Your task to perform on an android device: Is it going to rain today? Image 0: 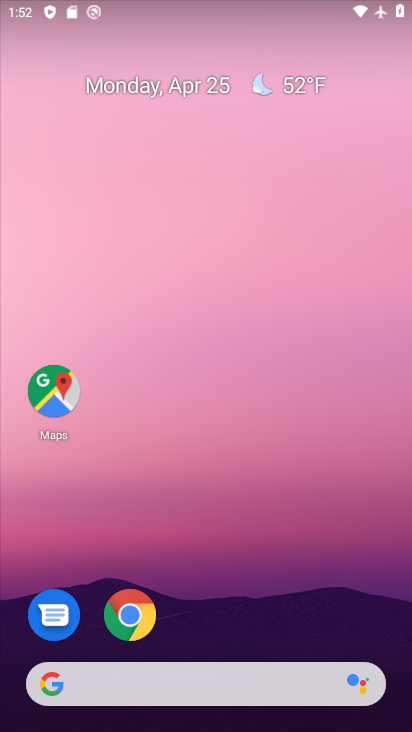
Step 0: drag from (234, 594) to (211, 59)
Your task to perform on an android device: Is it going to rain today? Image 1: 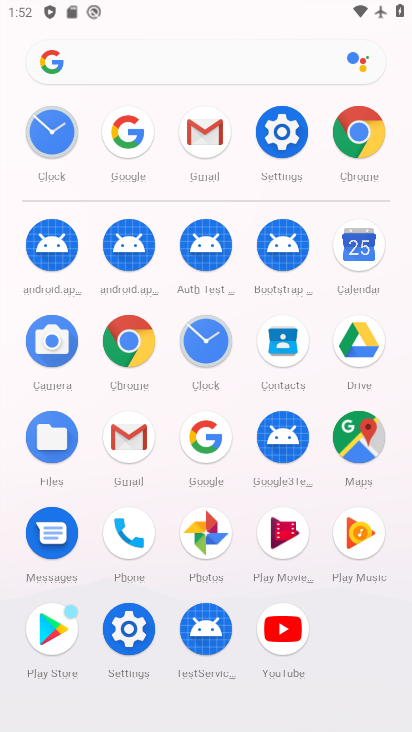
Step 1: click (124, 128)
Your task to perform on an android device: Is it going to rain today? Image 2: 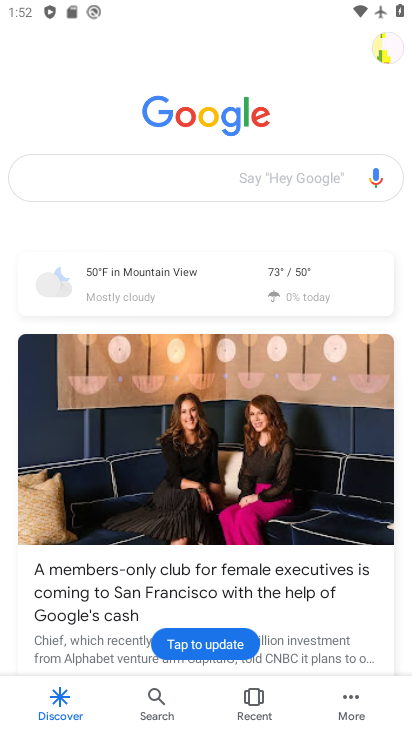
Step 2: click (141, 174)
Your task to perform on an android device: Is it going to rain today? Image 3: 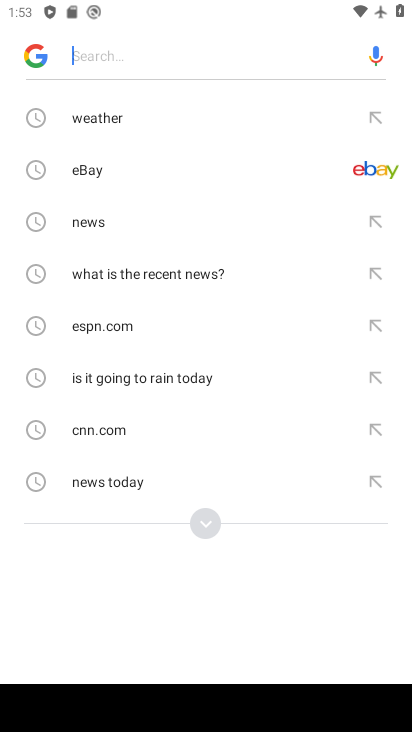
Step 3: click (110, 380)
Your task to perform on an android device: Is it going to rain today? Image 4: 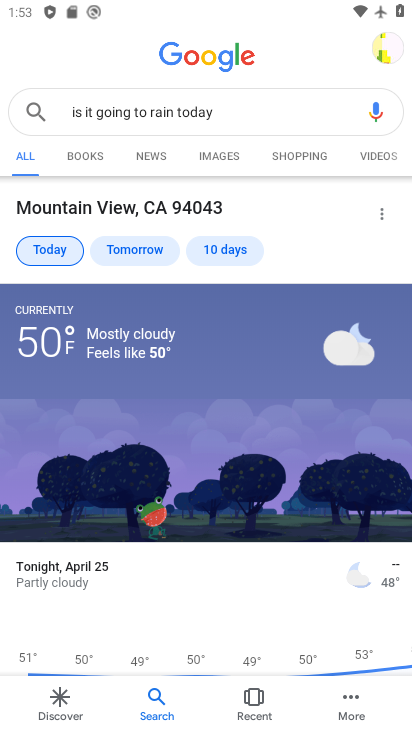
Step 4: task complete